Your task to perform on an android device: turn on airplane mode Image 0: 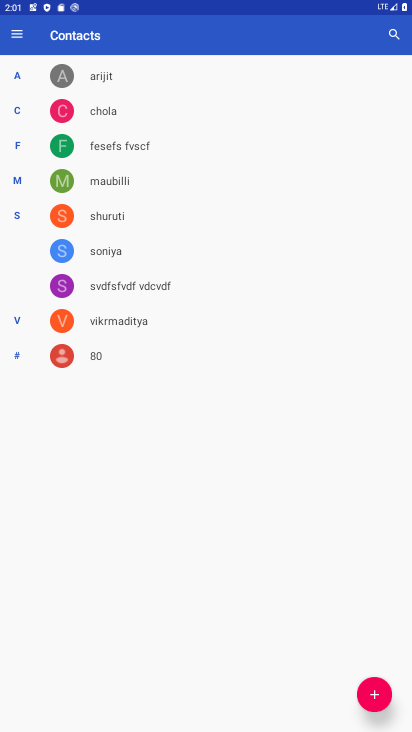
Step 0: press home button
Your task to perform on an android device: turn on airplane mode Image 1: 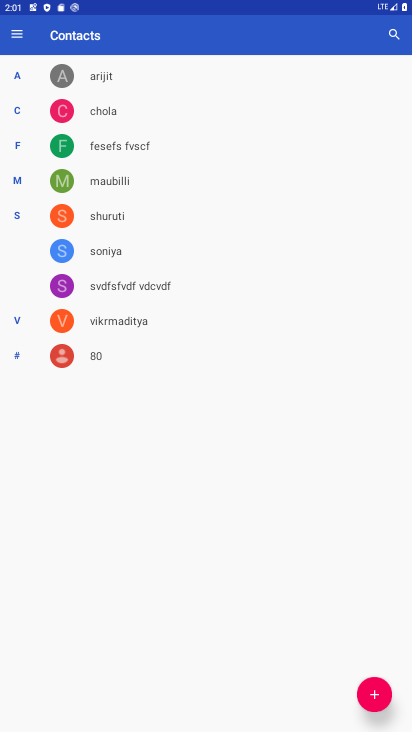
Step 1: press home button
Your task to perform on an android device: turn on airplane mode Image 2: 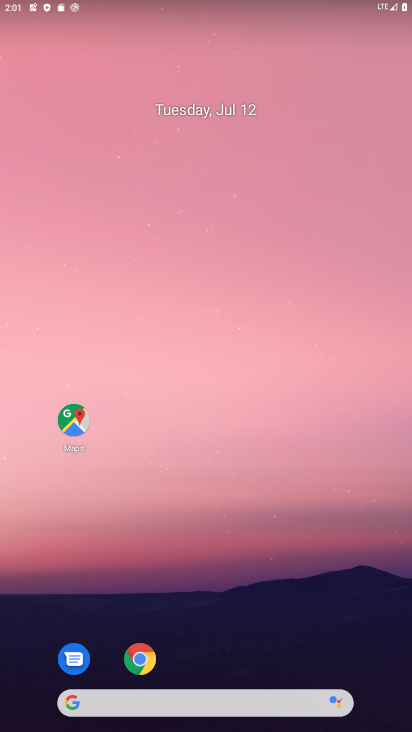
Step 2: drag from (209, 697) to (175, 204)
Your task to perform on an android device: turn on airplane mode Image 3: 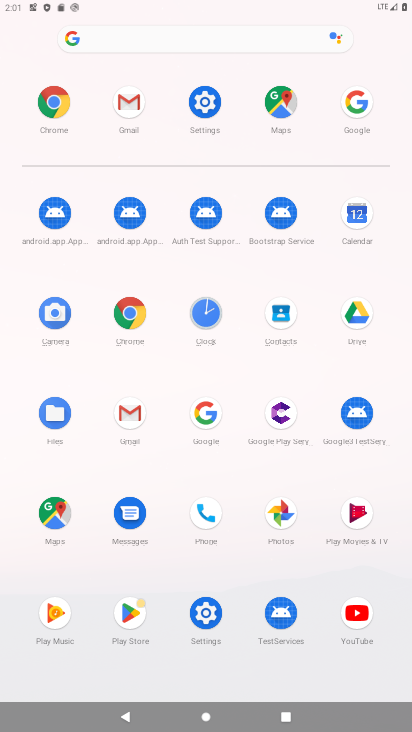
Step 3: click (207, 104)
Your task to perform on an android device: turn on airplane mode Image 4: 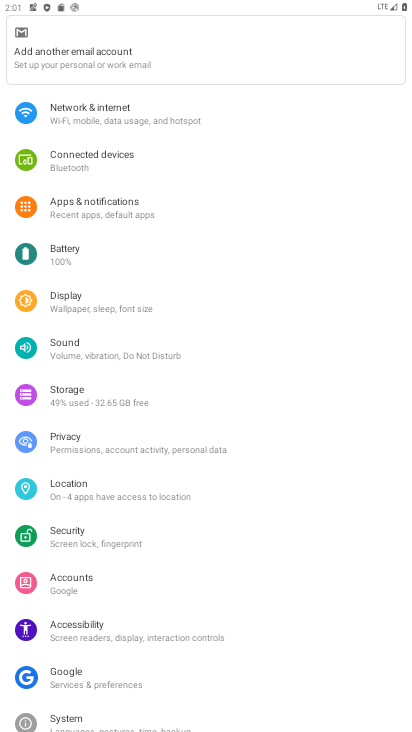
Step 4: click (93, 109)
Your task to perform on an android device: turn on airplane mode Image 5: 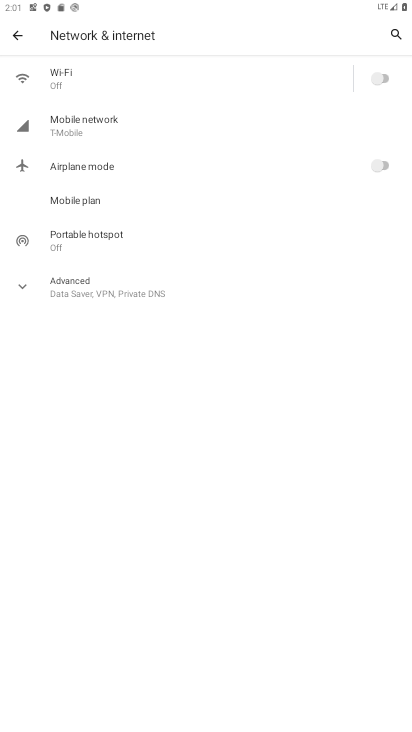
Step 5: click (384, 162)
Your task to perform on an android device: turn on airplane mode Image 6: 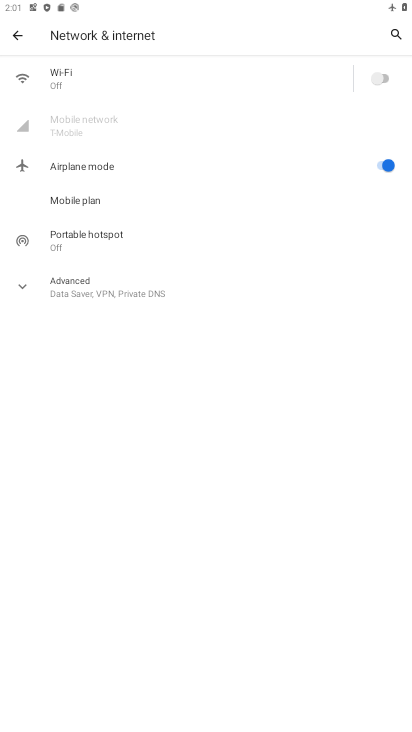
Step 6: task complete